Your task to perform on an android device: Search for Mexican restaurants on Maps Image 0: 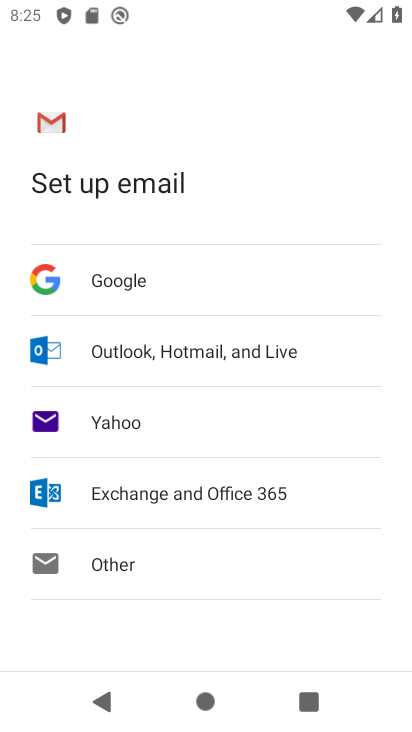
Step 0: press home button
Your task to perform on an android device: Search for Mexican restaurants on Maps Image 1: 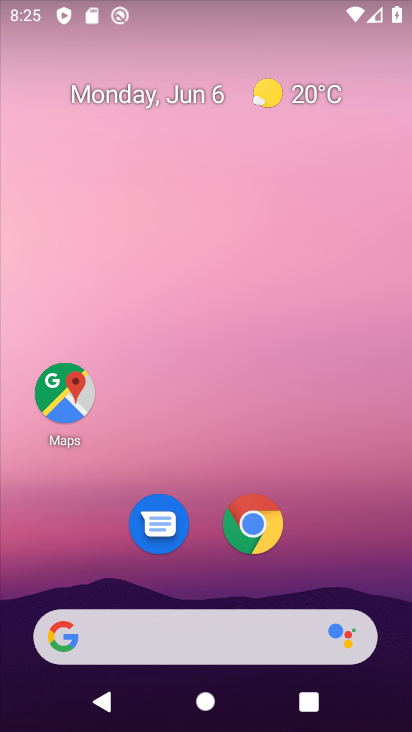
Step 1: click (56, 392)
Your task to perform on an android device: Search for Mexican restaurants on Maps Image 2: 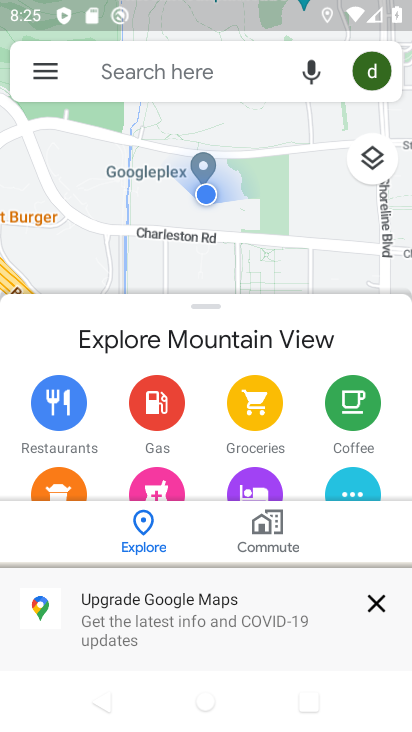
Step 2: click (194, 66)
Your task to perform on an android device: Search for Mexican restaurants on Maps Image 3: 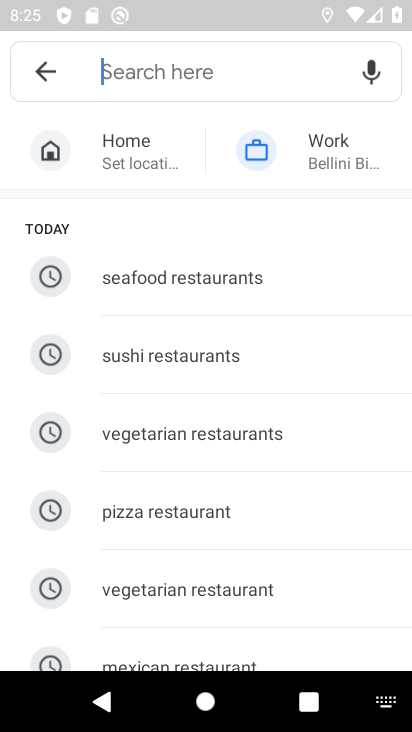
Step 3: drag from (211, 456) to (210, 259)
Your task to perform on an android device: Search for Mexican restaurants on Maps Image 4: 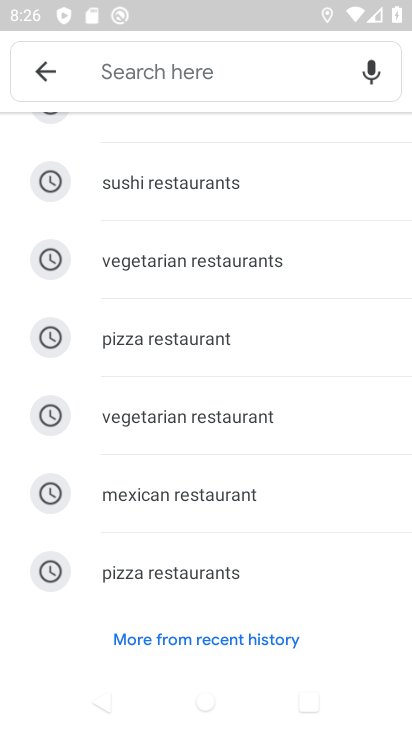
Step 4: click (182, 480)
Your task to perform on an android device: Search for Mexican restaurants on Maps Image 5: 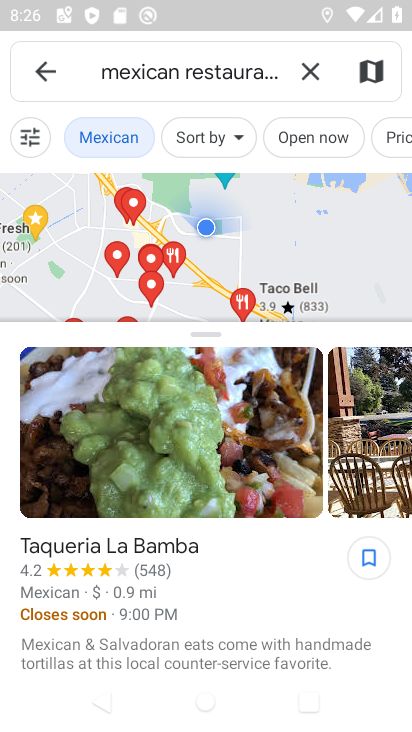
Step 5: task complete